Your task to perform on an android device: check data usage Image 0: 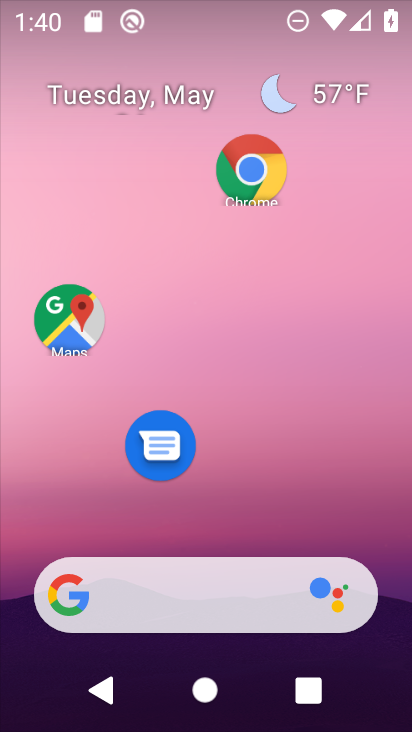
Step 0: drag from (223, 724) to (230, 34)
Your task to perform on an android device: check data usage Image 1: 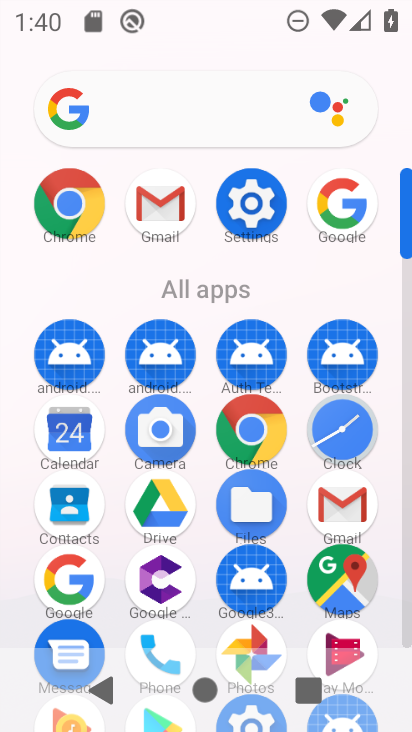
Step 1: click (254, 206)
Your task to perform on an android device: check data usage Image 2: 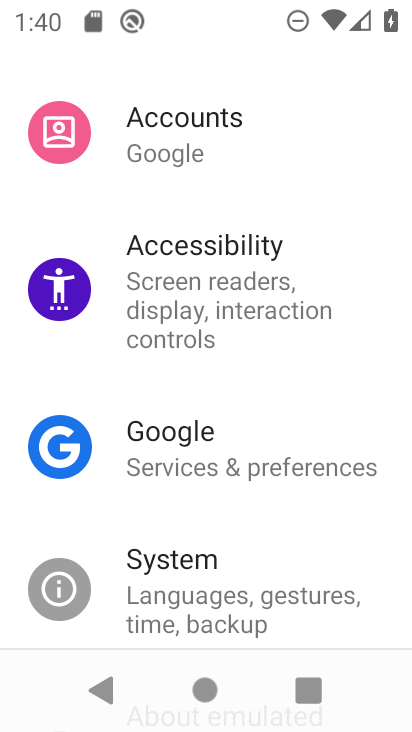
Step 2: drag from (240, 162) to (212, 669)
Your task to perform on an android device: check data usage Image 3: 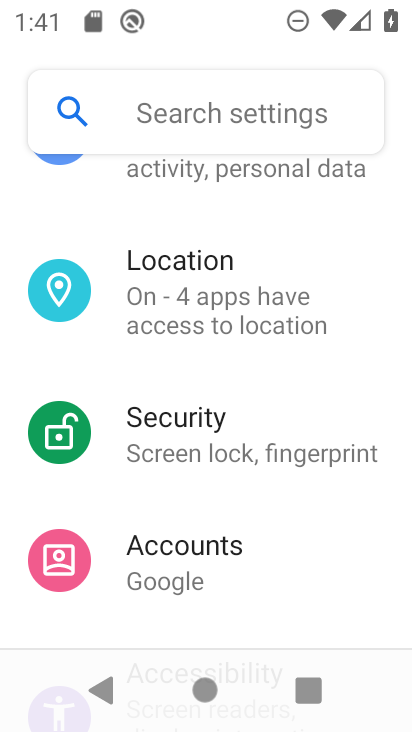
Step 3: drag from (231, 560) to (221, 604)
Your task to perform on an android device: check data usage Image 4: 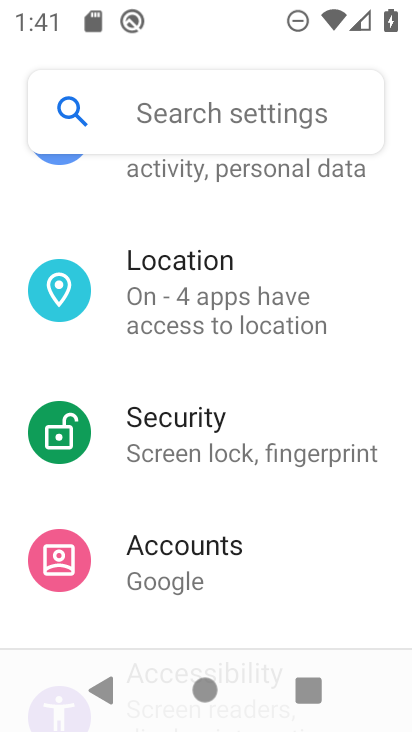
Step 4: drag from (219, 210) to (207, 640)
Your task to perform on an android device: check data usage Image 5: 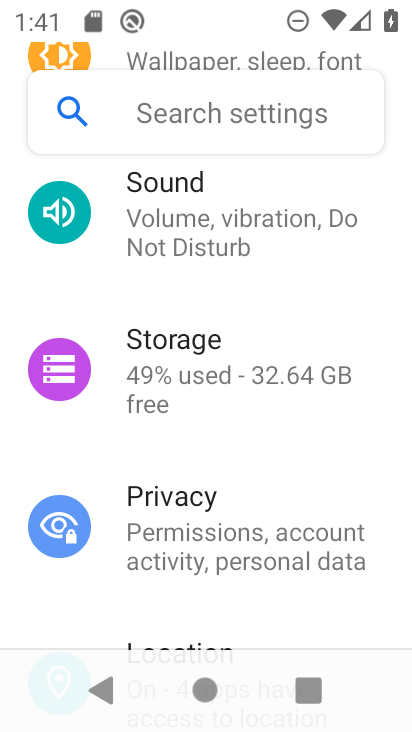
Step 5: drag from (222, 197) to (238, 639)
Your task to perform on an android device: check data usage Image 6: 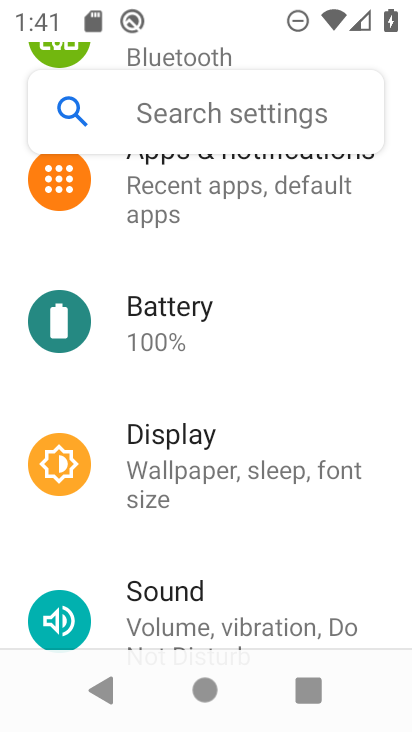
Step 6: drag from (254, 197) to (257, 576)
Your task to perform on an android device: check data usage Image 7: 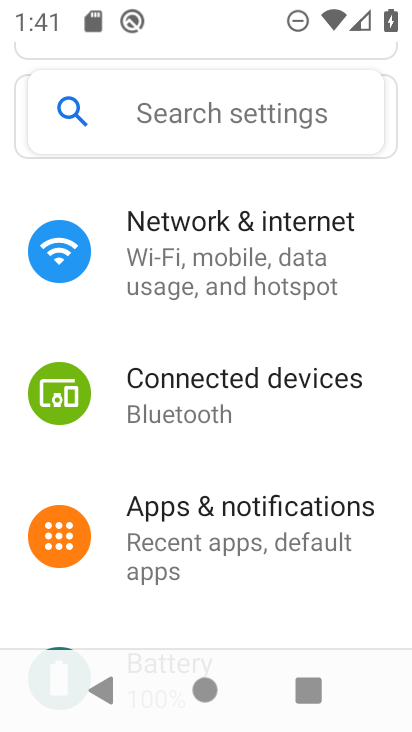
Step 7: drag from (243, 202) to (283, 581)
Your task to perform on an android device: check data usage Image 8: 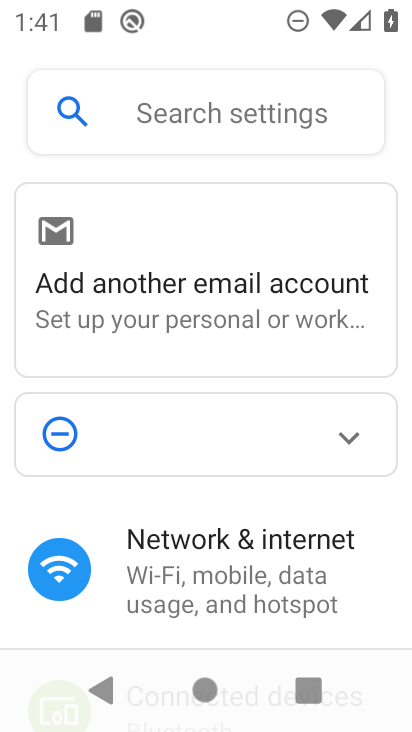
Step 8: click (201, 575)
Your task to perform on an android device: check data usage Image 9: 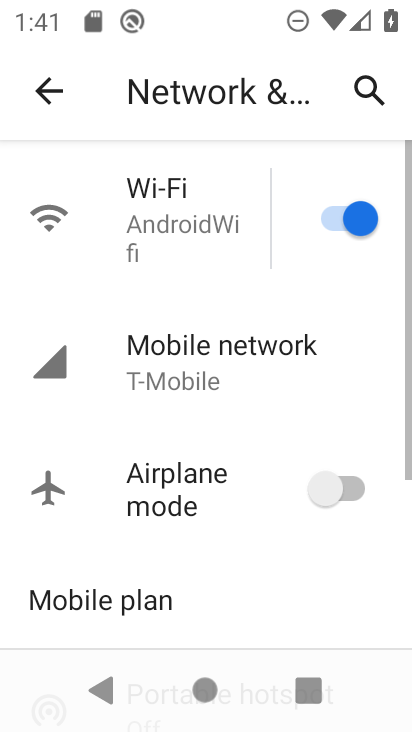
Step 9: drag from (194, 607) to (190, 444)
Your task to perform on an android device: check data usage Image 10: 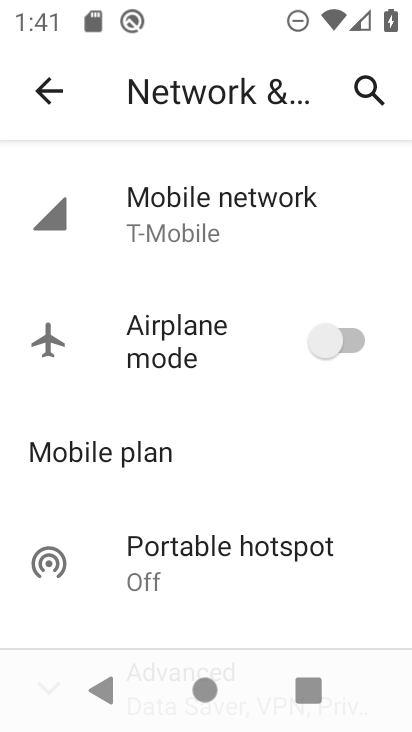
Step 10: click (168, 211)
Your task to perform on an android device: check data usage Image 11: 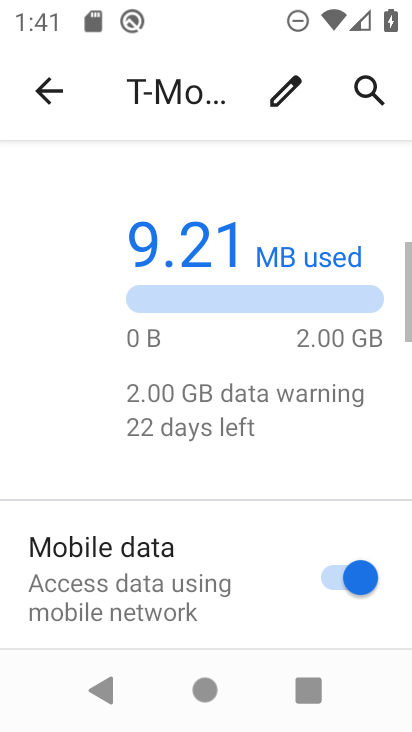
Step 11: drag from (191, 624) to (201, 316)
Your task to perform on an android device: check data usage Image 12: 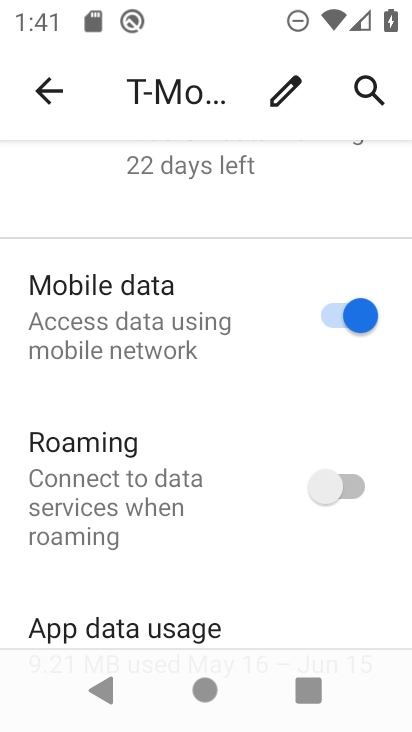
Step 12: drag from (202, 622) to (198, 344)
Your task to perform on an android device: check data usage Image 13: 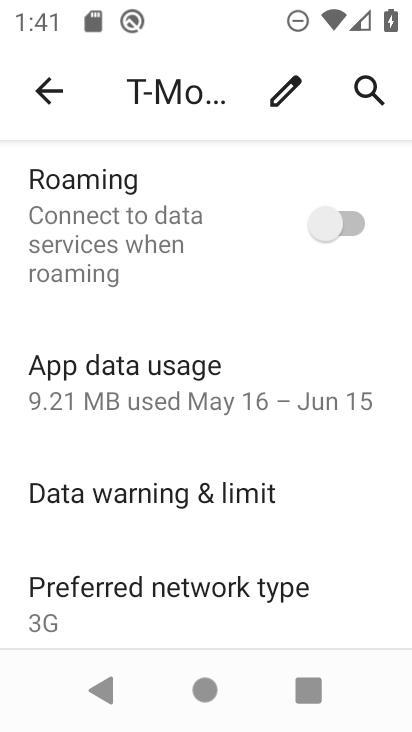
Step 13: click (152, 380)
Your task to perform on an android device: check data usage Image 14: 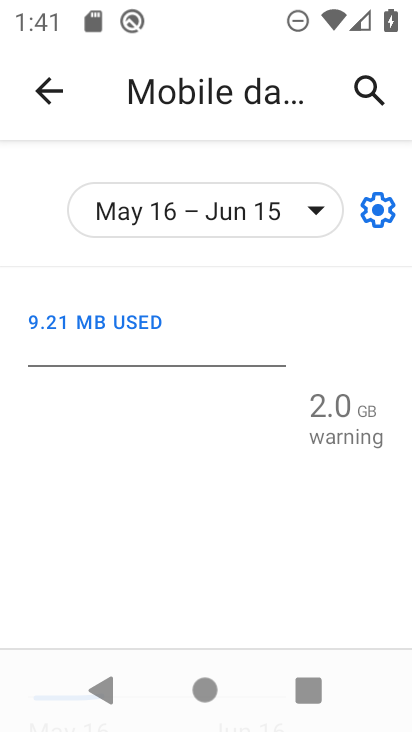
Step 14: task complete